Your task to perform on an android device: Clear the shopping cart on costco.com. Image 0: 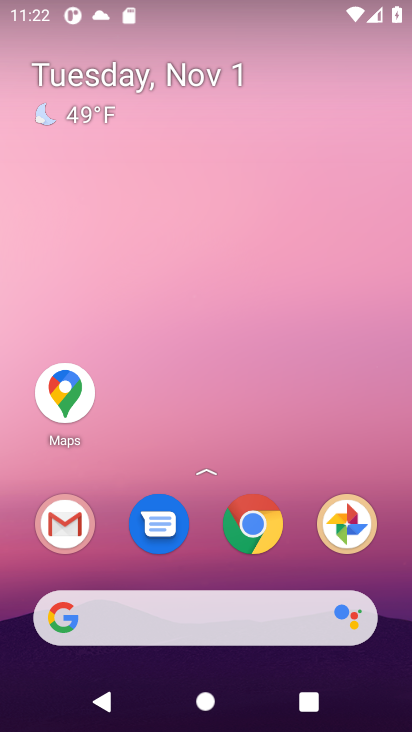
Step 0: press home button
Your task to perform on an android device: Clear the shopping cart on costco.com. Image 1: 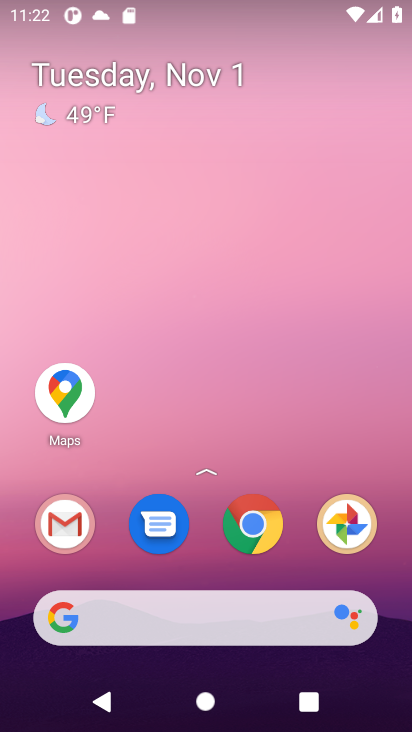
Step 1: click (91, 617)
Your task to perform on an android device: Clear the shopping cart on costco.com. Image 2: 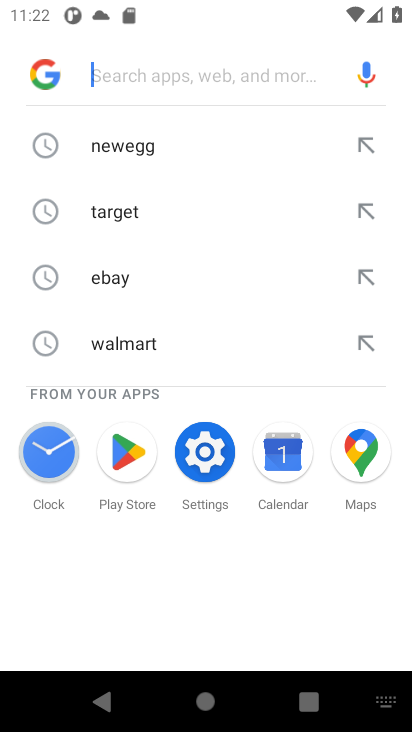
Step 2: type "costco.com"
Your task to perform on an android device: Clear the shopping cart on costco.com. Image 3: 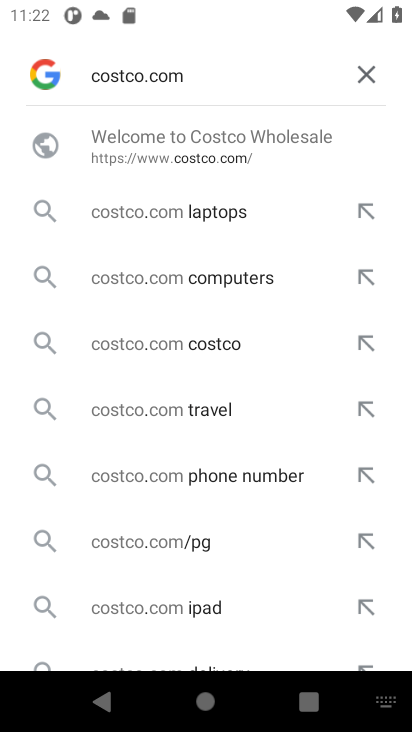
Step 3: press enter
Your task to perform on an android device: Clear the shopping cart on costco.com. Image 4: 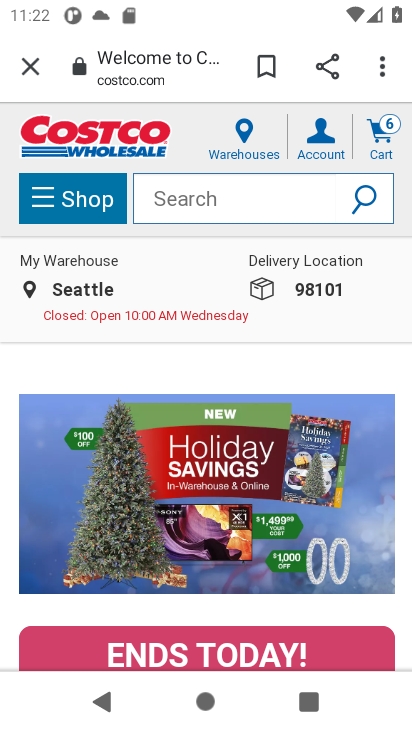
Step 4: click (376, 136)
Your task to perform on an android device: Clear the shopping cart on costco.com. Image 5: 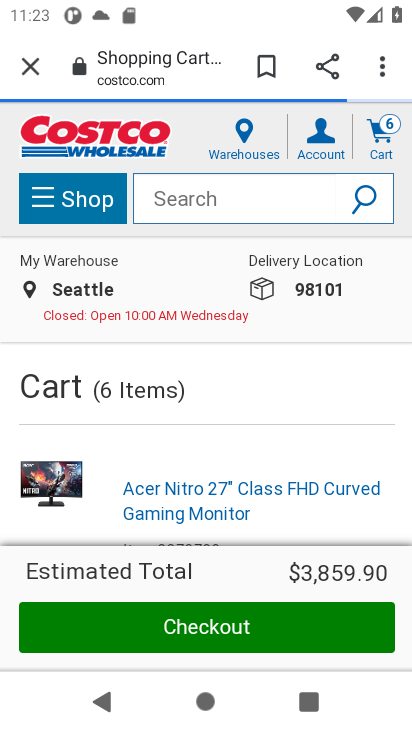
Step 5: drag from (129, 481) to (134, 270)
Your task to perform on an android device: Clear the shopping cart on costco.com. Image 6: 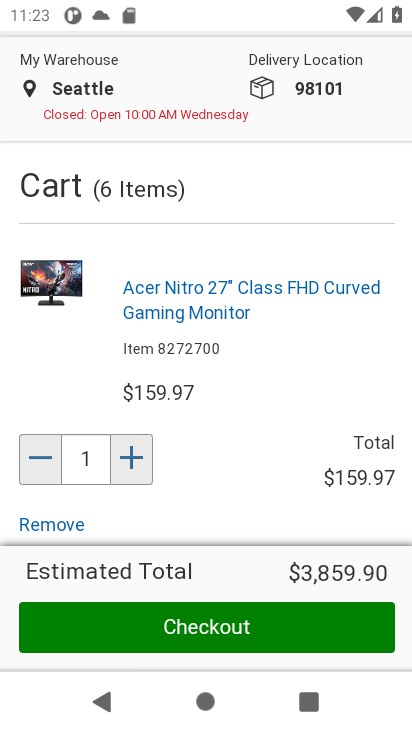
Step 6: drag from (207, 474) to (208, 239)
Your task to perform on an android device: Clear the shopping cart on costco.com. Image 7: 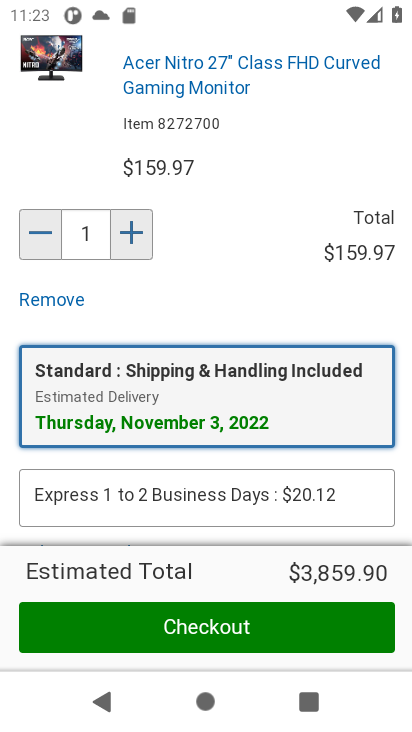
Step 7: click (46, 299)
Your task to perform on an android device: Clear the shopping cart on costco.com. Image 8: 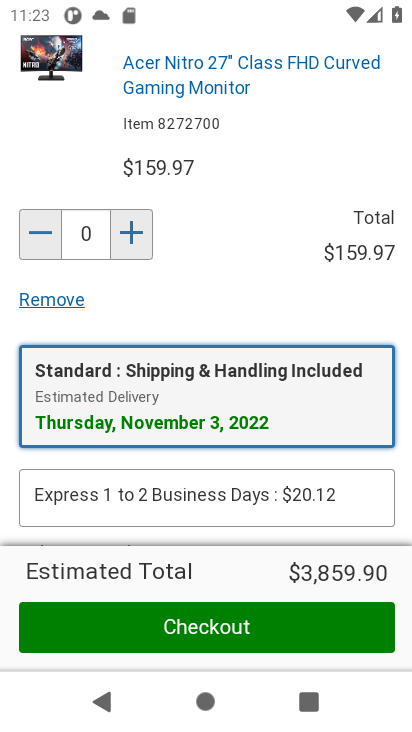
Step 8: task complete